Your task to perform on an android device: Open notification settings Image 0: 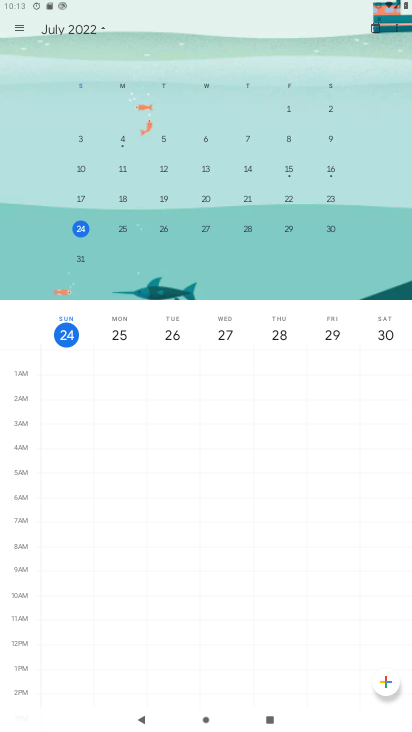
Step 0: press home button
Your task to perform on an android device: Open notification settings Image 1: 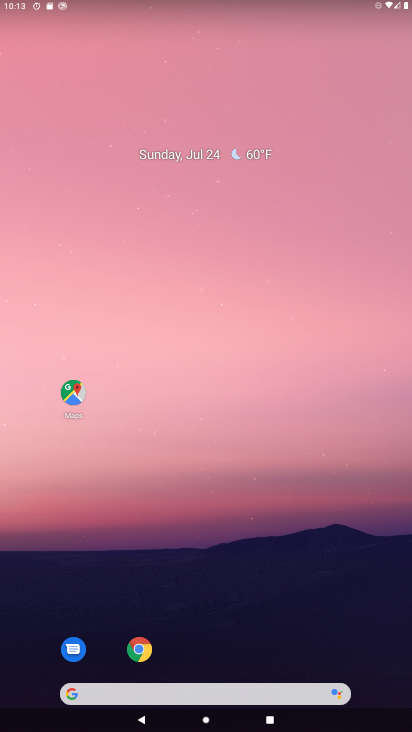
Step 1: drag from (288, 596) to (319, 79)
Your task to perform on an android device: Open notification settings Image 2: 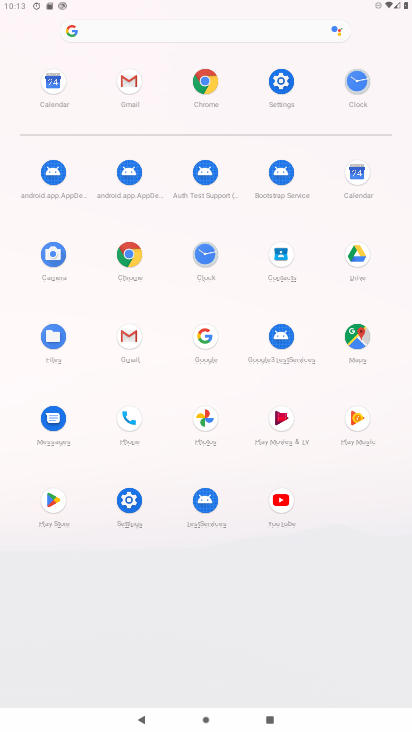
Step 2: click (289, 75)
Your task to perform on an android device: Open notification settings Image 3: 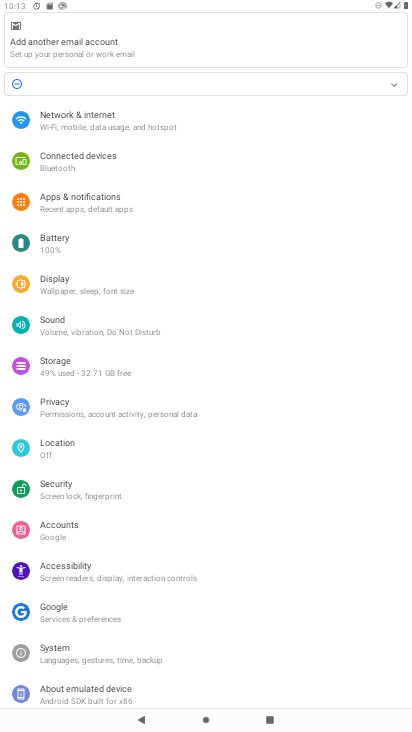
Step 3: click (109, 204)
Your task to perform on an android device: Open notification settings Image 4: 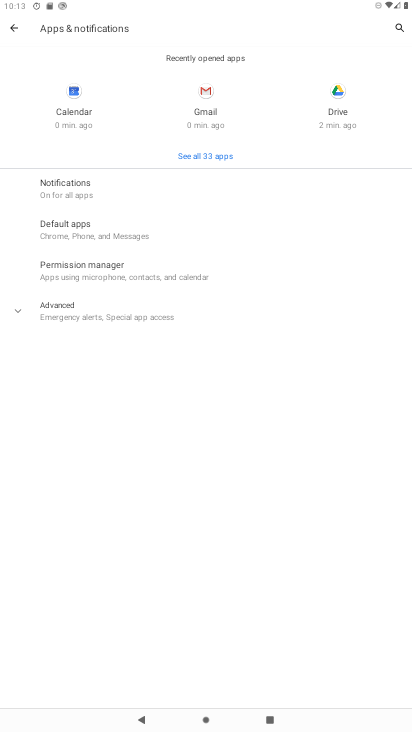
Step 4: click (87, 184)
Your task to perform on an android device: Open notification settings Image 5: 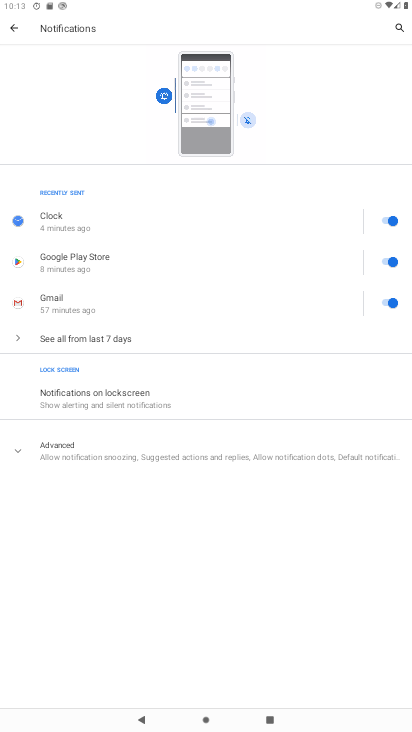
Step 5: task complete